Your task to perform on an android device: change the upload size in google photos Image 0: 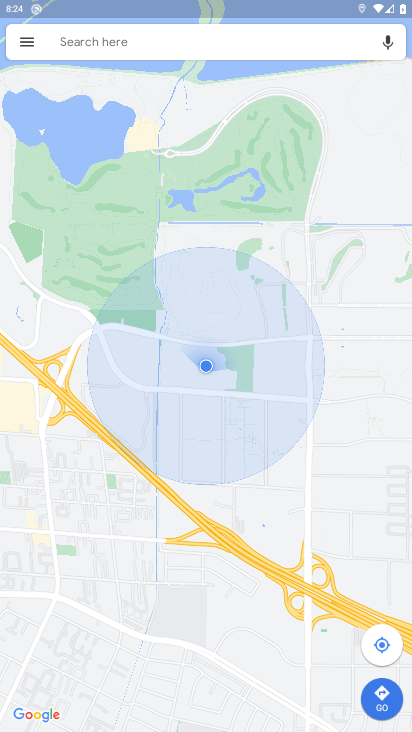
Step 0: press home button
Your task to perform on an android device: change the upload size in google photos Image 1: 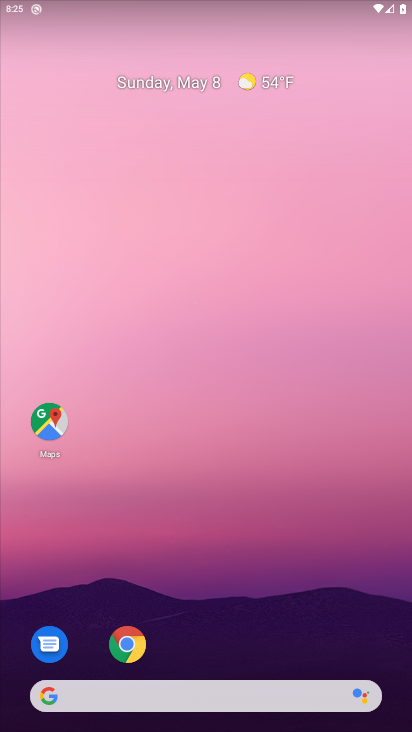
Step 1: drag from (195, 652) to (225, 387)
Your task to perform on an android device: change the upload size in google photos Image 2: 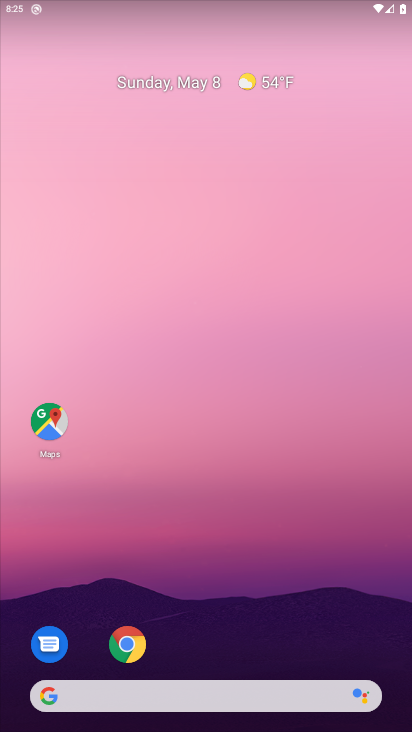
Step 2: drag from (204, 677) to (231, 313)
Your task to perform on an android device: change the upload size in google photos Image 3: 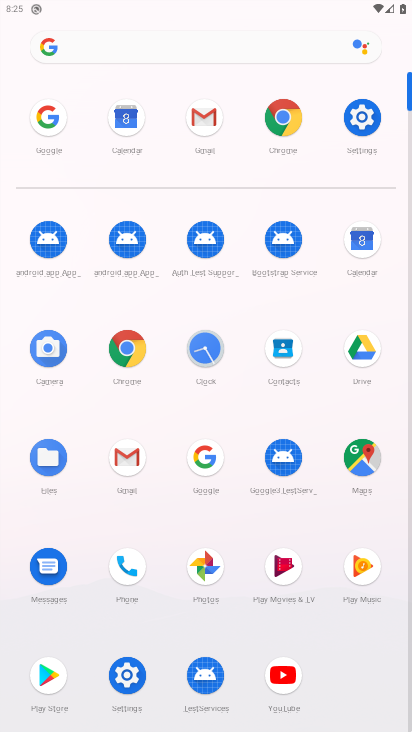
Step 3: click (209, 572)
Your task to perform on an android device: change the upload size in google photos Image 4: 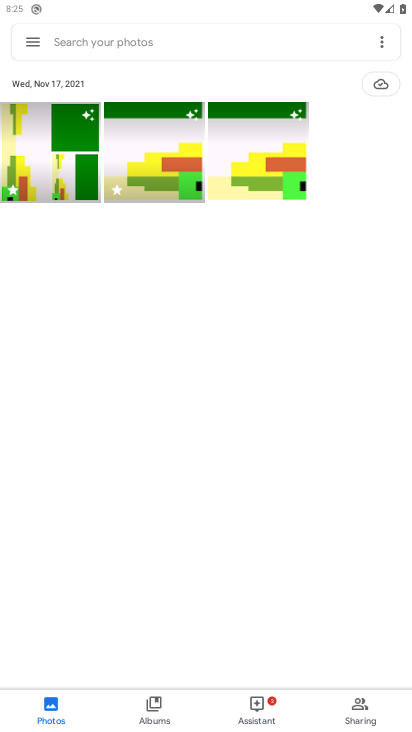
Step 4: click (38, 48)
Your task to perform on an android device: change the upload size in google photos Image 5: 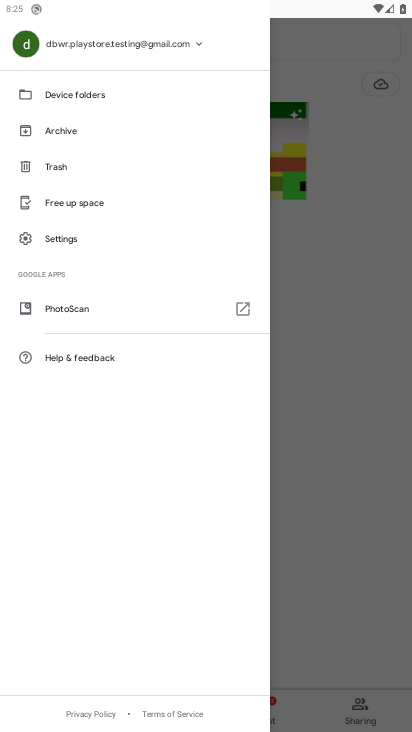
Step 5: click (64, 230)
Your task to perform on an android device: change the upload size in google photos Image 6: 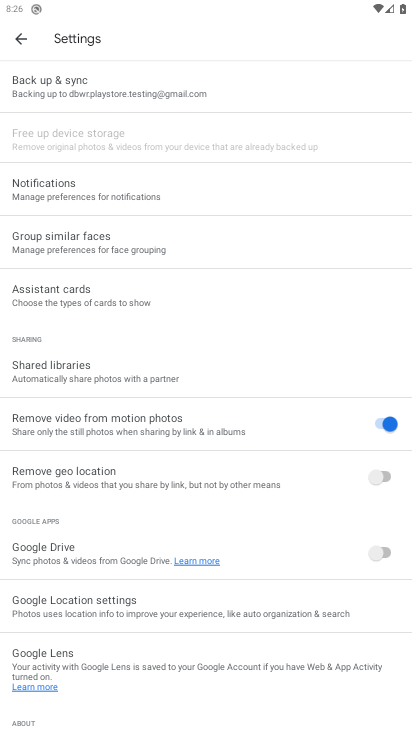
Step 6: drag from (79, 699) to (116, 466)
Your task to perform on an android device: change the upload size in google photos Image 7: 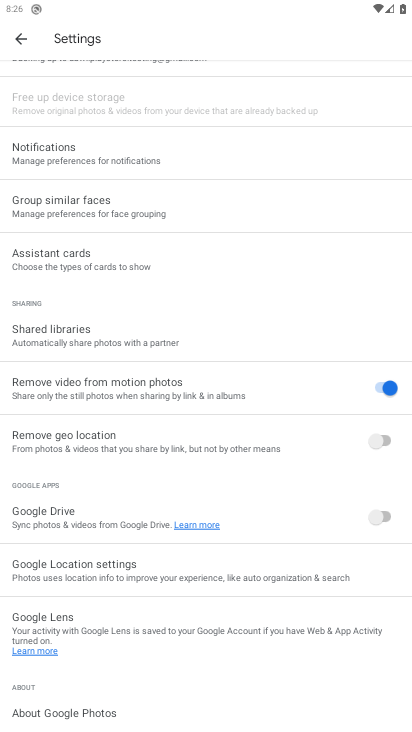
Step 7: drag from (138, 86) to (141, 409)
Your task to perform on an android device: change the upload size in google photos Image 8: 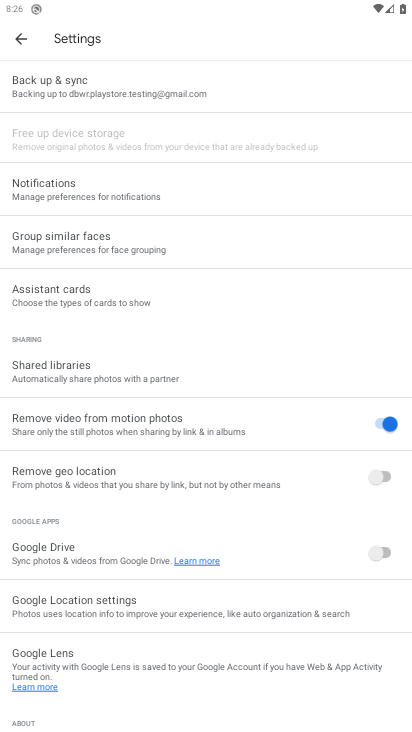
Step 8: click (96, 91)
Your task to perform on an android device: change the upload size in google photos Image 9: 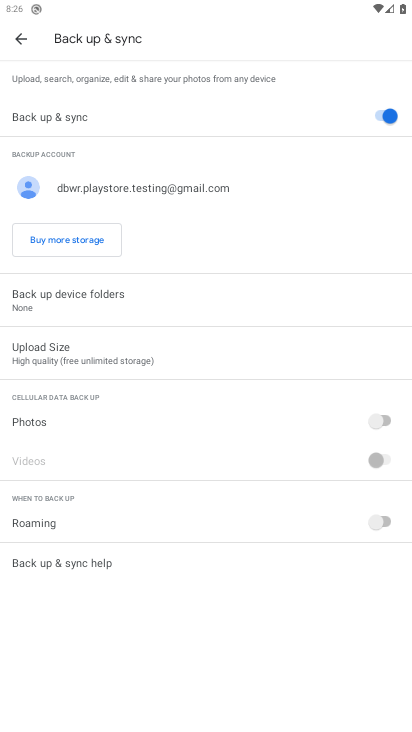
Step 9: click (66, 351)
Your task to perform on an android device: change the upload size in google photos Image 10: 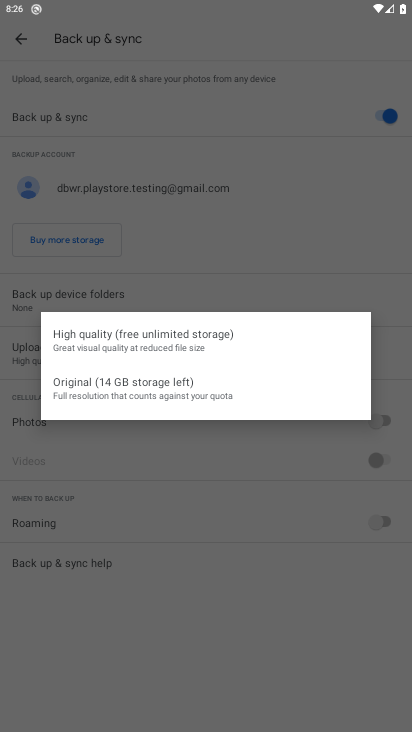
Step 10: click (94, 382)
Your task to perform on an android device: change the upload size in google photos Image 11: 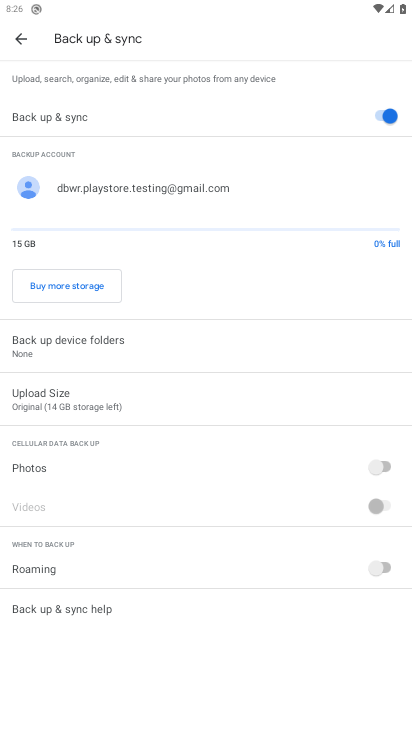
Step 11: task complete